Your task to perform on an android device: Open the web browser Image 0: 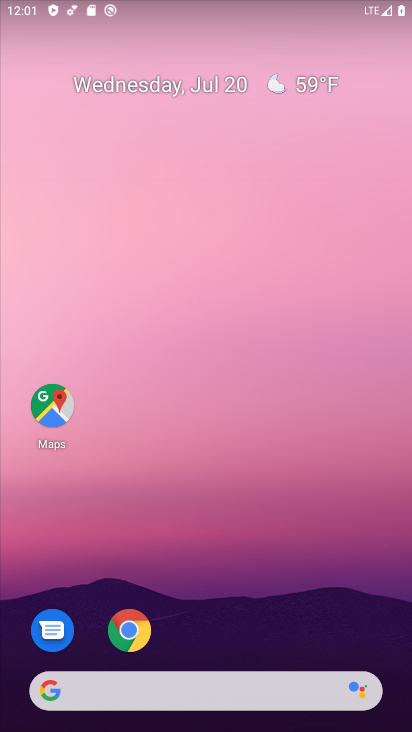
Step 0: drag from (216, 637) to (216, 108)
Your task to perform on an android device: Open the web browser Image 1: 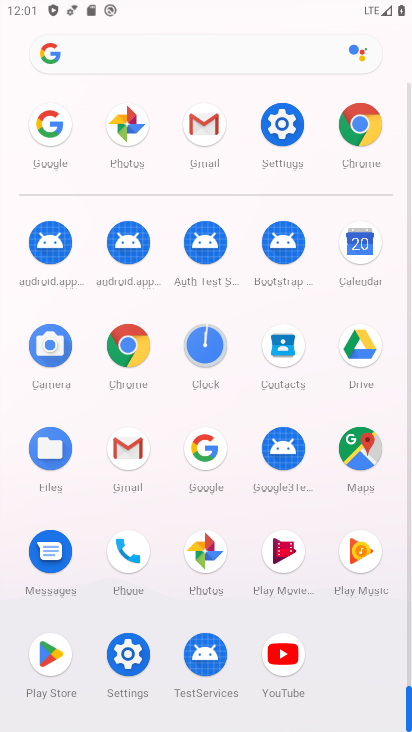
Step 1: click (365, 137)
Your task to perform on an android device: Open the web browser Image 2: 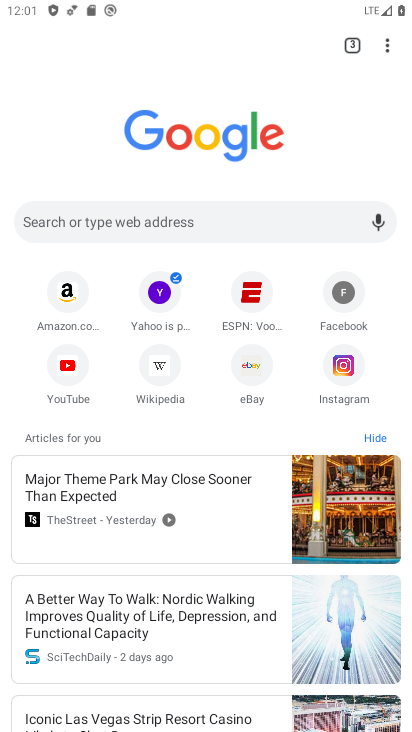
Step 2: task complete